Your task to perform on an android device: Show the shopping cart on amazon. Add "logitech g933" to the cart on amazon Image 0: 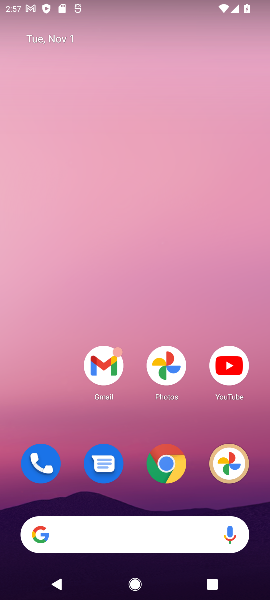
Step 0: drag from (191, 430) to (189, 36)
Your task to perform on an android device: Show the shopping cart on amazon. Add "logitech g933" to the cart on amazon Image 1: 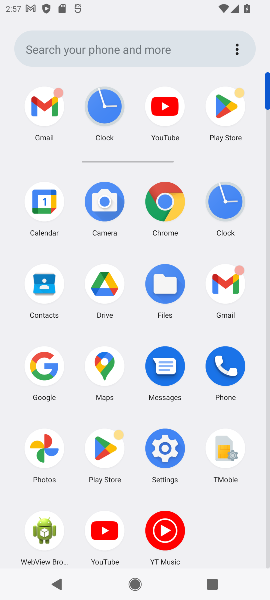
Step 1: click (160, 203)
Your task to perform on an android device: Show the shopping cart on amazon. Add "logitech g933" to the cart on amazon Image 2: 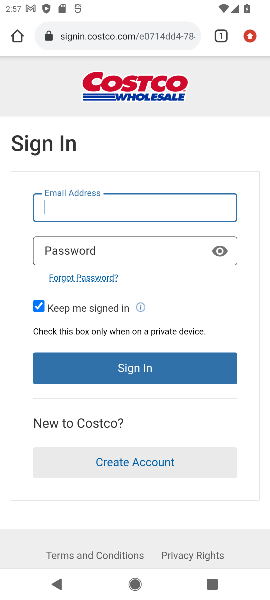
Step 2: click (130, 36)
Your task to perform on an android device: Show the shopping cart on amazon. Add "logitech g933" to the cart on amazon Image 3: 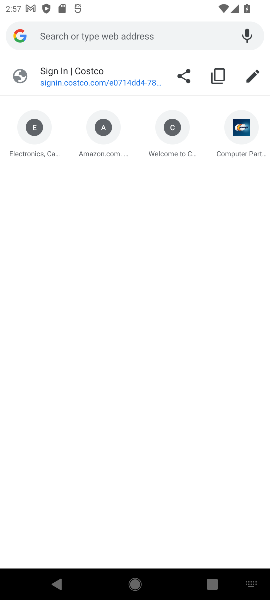
Step 3: type "amazon.com"
Your task to perform on an android device: Show the shopping cart on amazon. Add "logitech g933" to the cart on amazon Image 4: 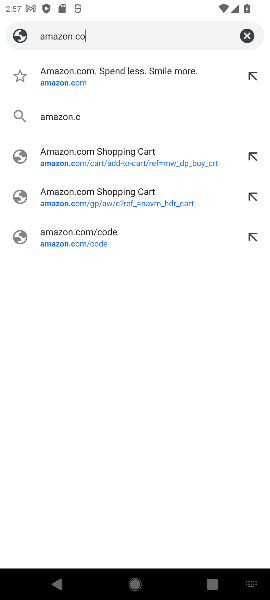
Step 4: press enter
Your task to perform on an android device: Show the shopping cart on amazon. Add "logitech g933" to the cart on amazon Image 5: 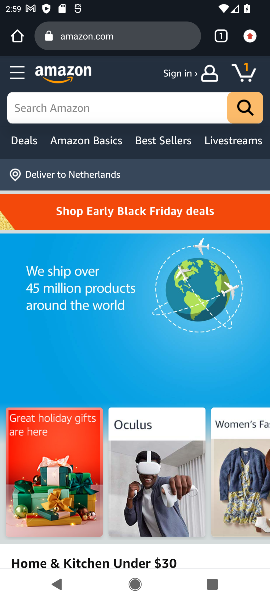
Step 5: click (169, 107)
Your task to perform on an android device: Show the shopping cart on amazon. Add "logitech g933" to the cart on amazon Image 6: 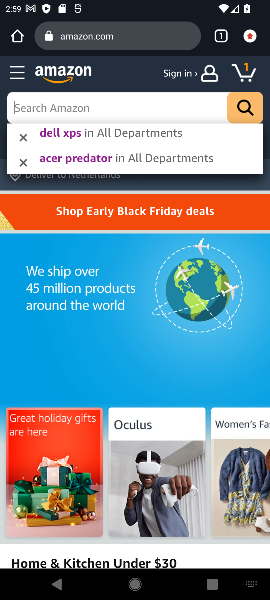
Step 6: type "logitech g933"
Your task to perform on an android device: Show the shopping cart on amazon. Add "logitech g933" to the cart on amazon Image 7: 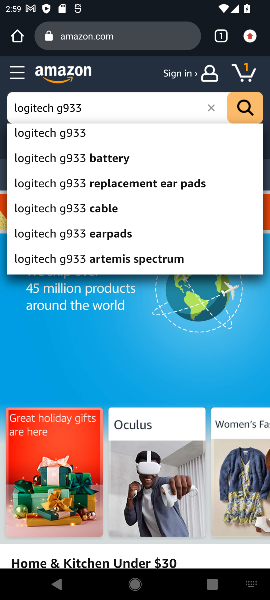
Step 7: press enter
Your task to perform on an android device: Show the shopping cart on amazon. Add "logitech g933" to the cart on amazon Image 8: 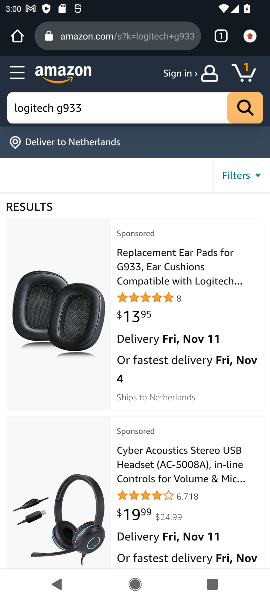
Step 8: drag from (141, 451) to (127, 286)
Your task to perform on an android device: Show the shopping cart on amazon. Add "logitech g933" to the cart on amazon Image 9: 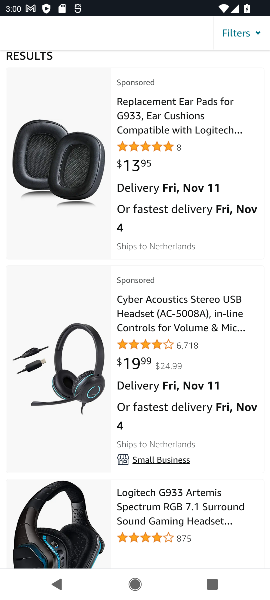
Step 9: drag from (44, 462) to (51, 237)
Your task to perform on an android device: Show the shopping cart on amazon. Add "logitech g933" to the cart on amazon Image 10: 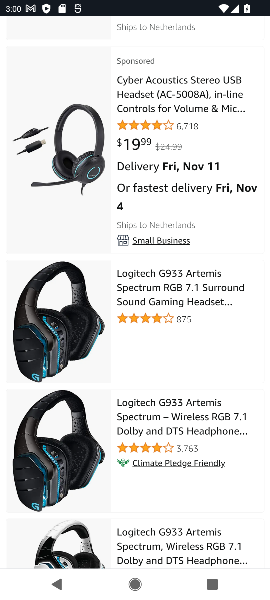
Step 10: click (138, 282)
Your task to perform on an android device: Show the shopping cart on amazon. Add "logitech g933" to the cart on amazon Image 11: 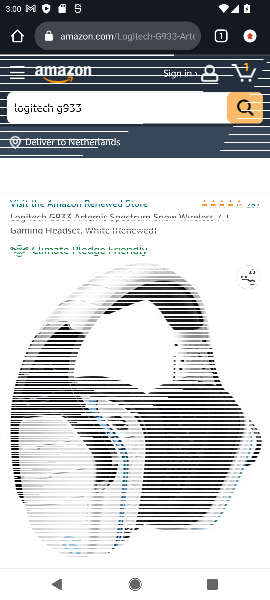
Step 11: task complete